Your task to perform on an android device: Open eBay Image 0: 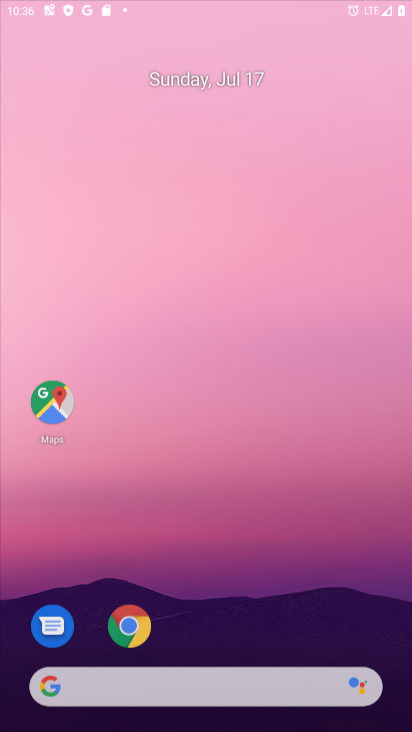
Step 0: press home button
Your task to perform on an android device: Open eBay Image 1: 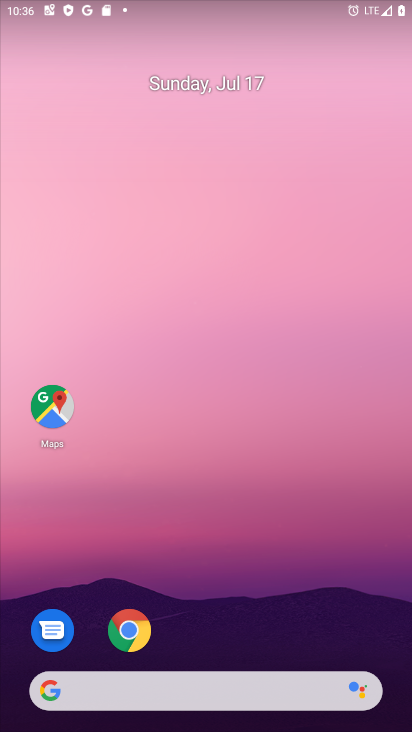
Step 1: drag from (213, 643) to (239, 10)
Your task to perform on an android device: Open eBay Image 2: 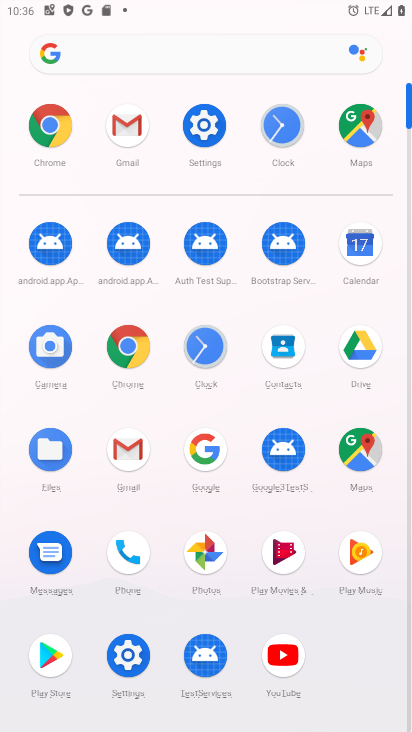
Step 2: click (47, 115)
Your task to perform on an android device: Open eBay Image 3: 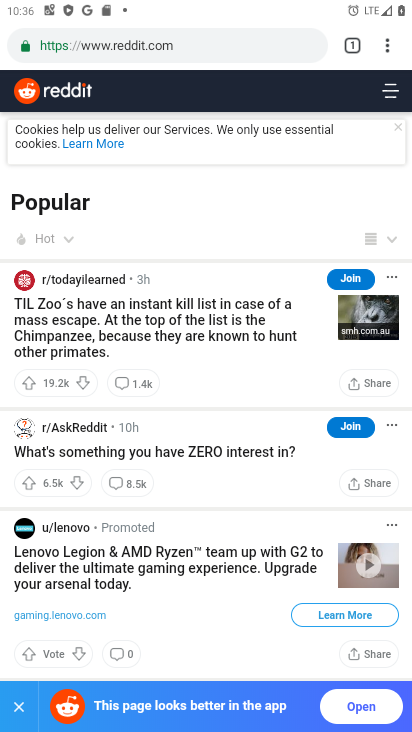
Step 3: click (355, 41)
Your task to perform on an android device: Open eBay Image 4: 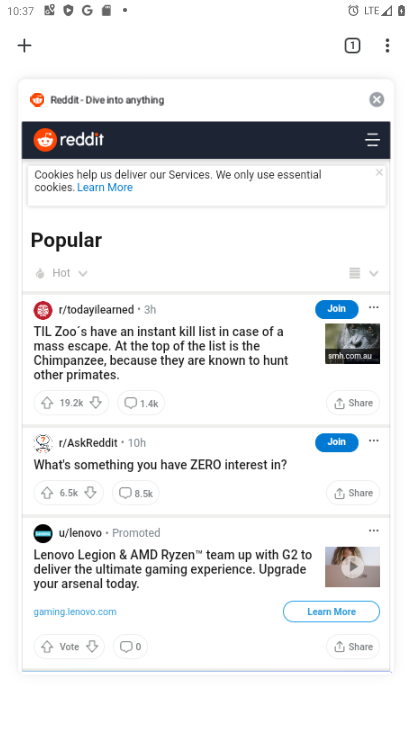
Step 4: click (24, 44)
Your task to perform on an android device: Open eBay Image 5: 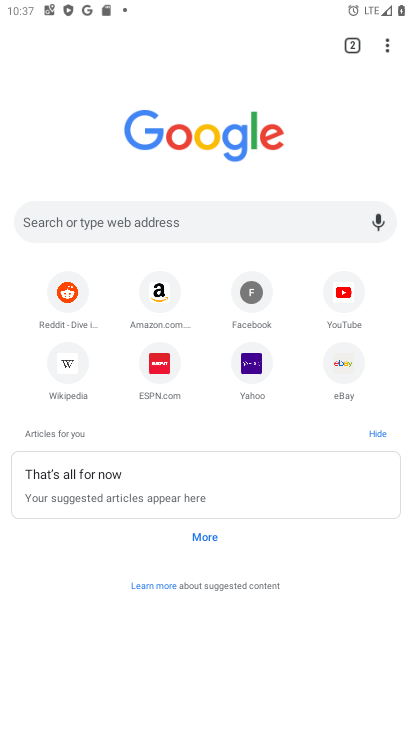
Step 5: click (348, 359)
Your task to perform on an android device: Open eBay Image 6: 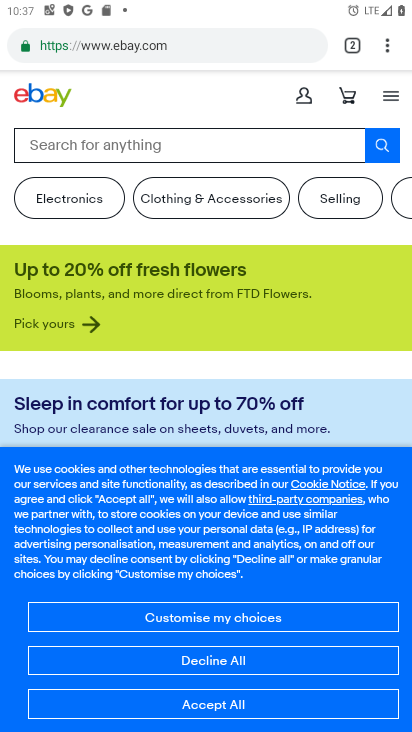
Step 6: task complete